Your task to perform on an android device: change text size in settings app Image 0: 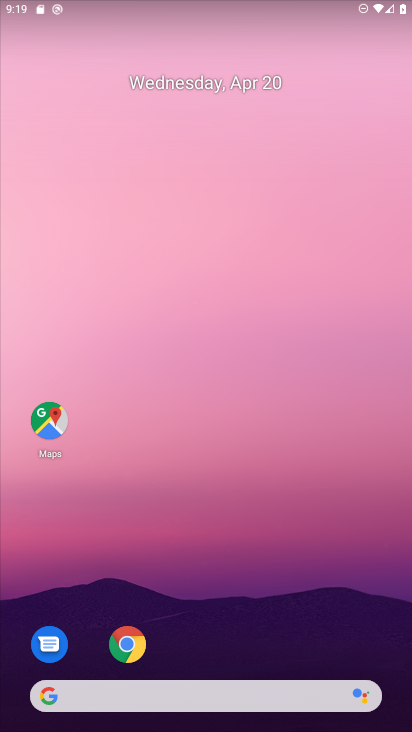
Step 0: drag from (295, 626) to (252, 21)
Your task to perform on an android device: change text size in settings app Image 1: 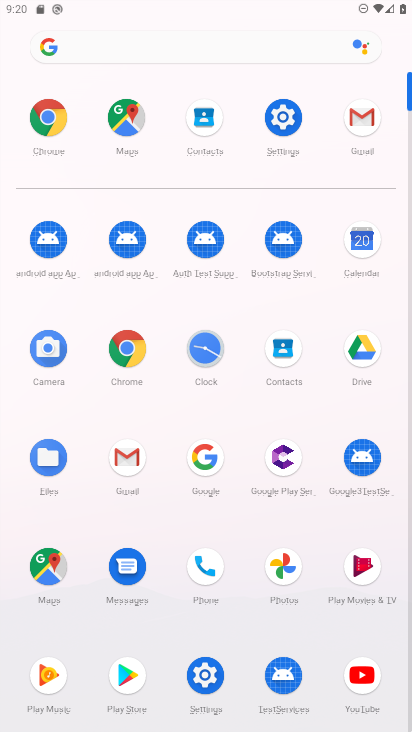
Step 1: click (199, 672)
Your task to perform on an android device: change text size in settings app Image 2: 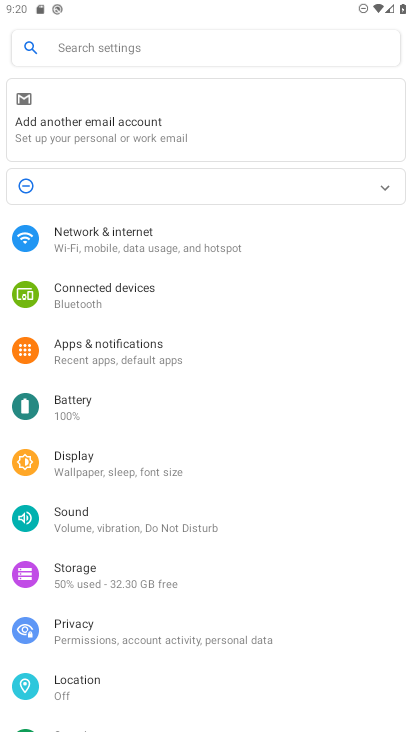
Step 2: click (106, 474)
Your task to perform on an android device: change text size in settings app Image 3: 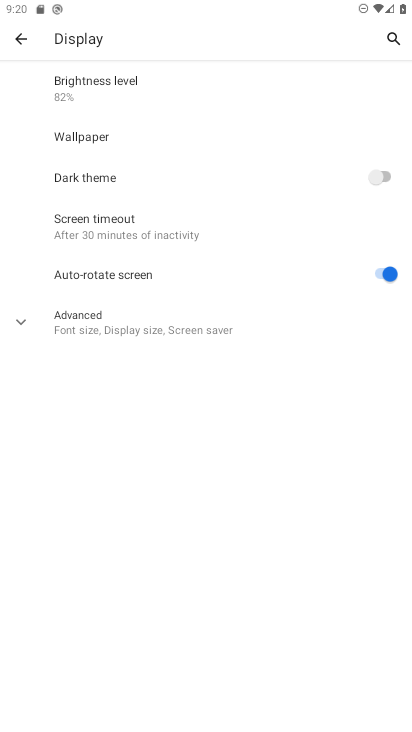
Step 3: click (146, 329)
Your task to perform on an android device: change text size in settings app Image 4: 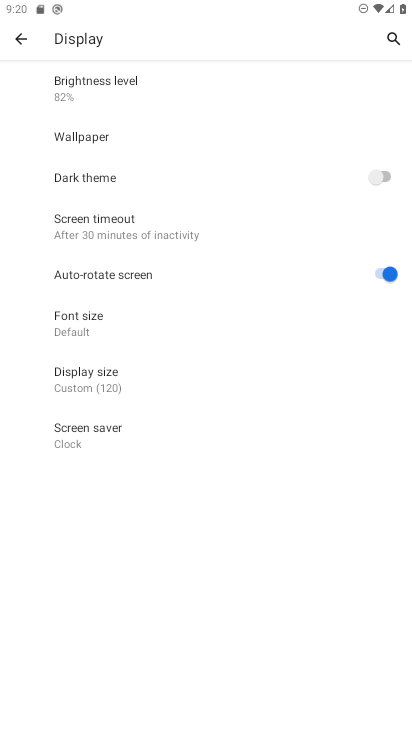
Step 4: click (105, 336)
Your task to perform on an android device: change text size in settings app Image 5: 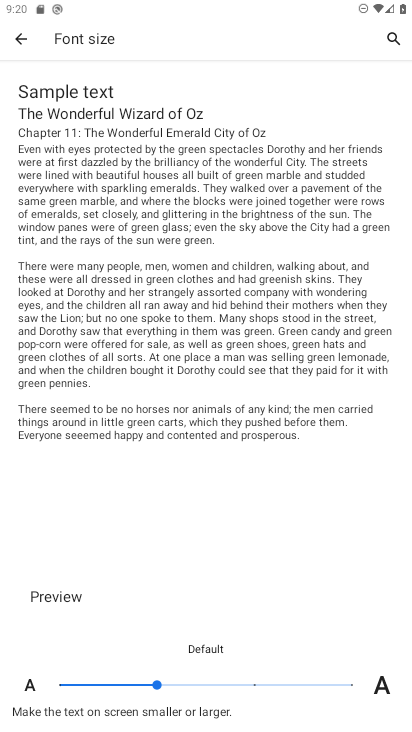
Step 5: click (254, 681)
Your task to perform on an android device: change text size in settings app Image 6: 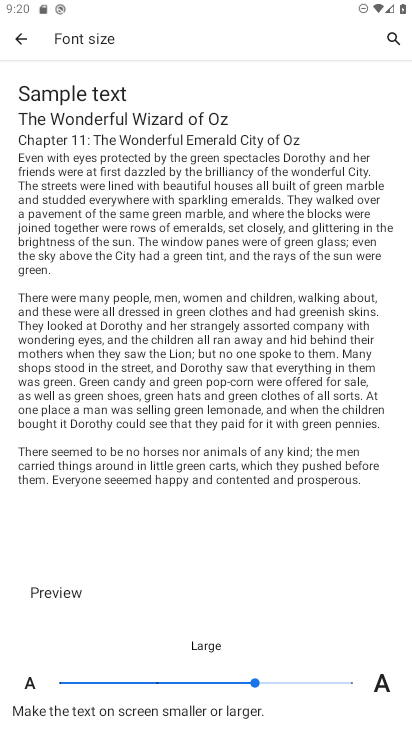
Step 6: task complete